Your task to perform on an android device: open chrome privacy settings Image 0: 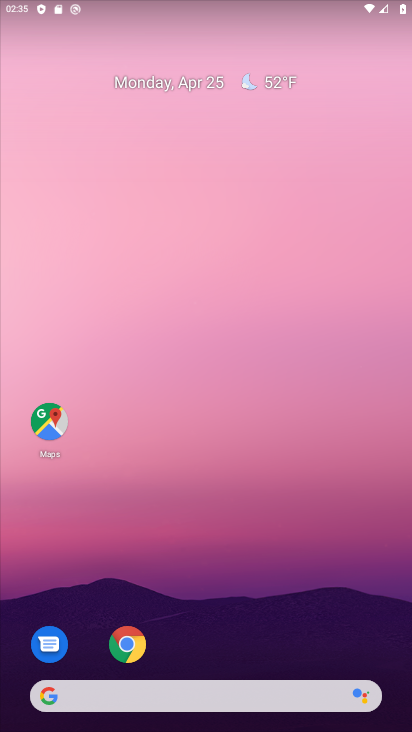
Step 0: click (131, 632)
Your task to perform on an android device: open chrome privacy settings Image 1: 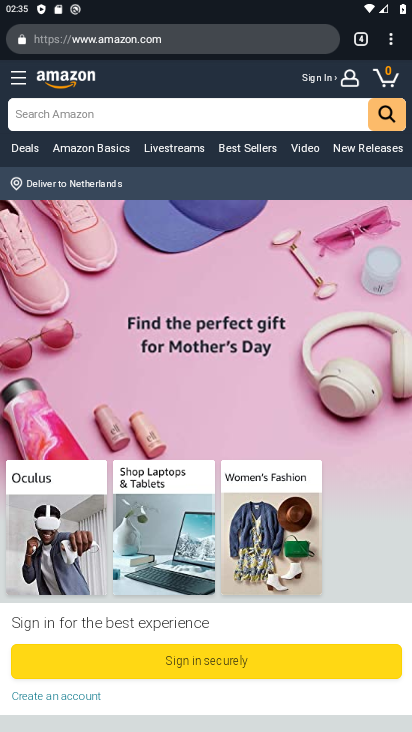
Step 1: click (394, 41)
Your task to perform on an android device: open chrome privacy settings Image 2: 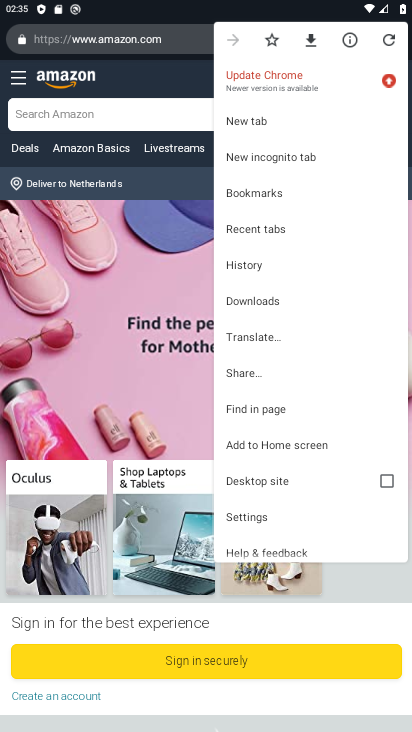
Step 2: click (262, 514)
Your task to perform on an android device: open chrome privacy settings Image 3: 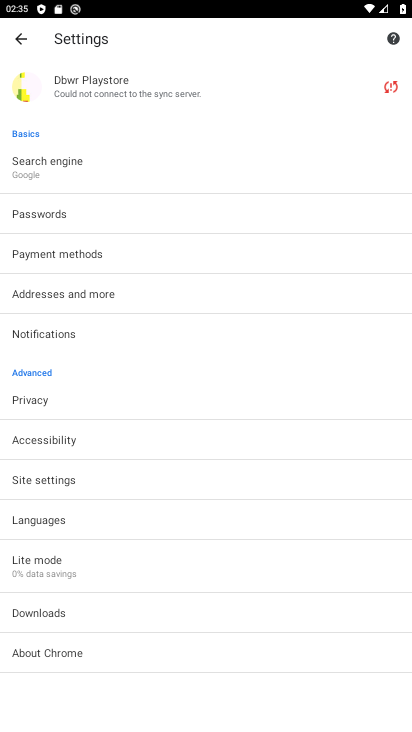
Step 3: click (77, 405)
Your task to perform on an android device: open chrome privacy settings Image 4: 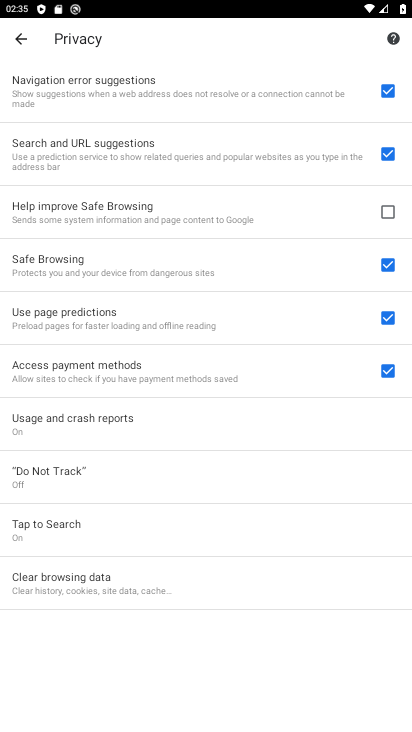
Step 4: task complete